Your task to perform on an android device: What is the recent news? Image 0: 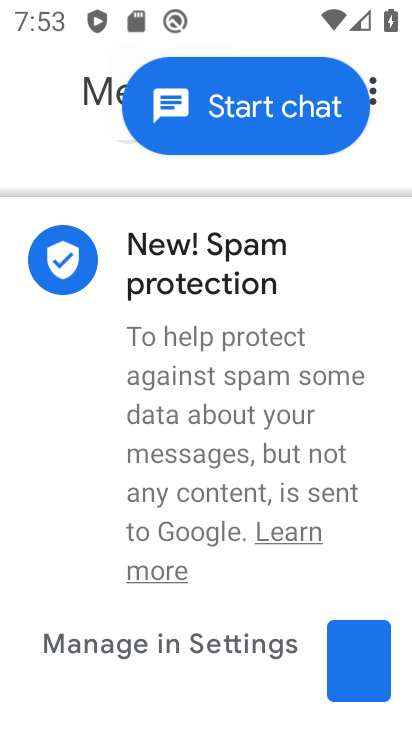
Step 0: press home button
Your task to perform on an android device: What is the recent news? Image 1: 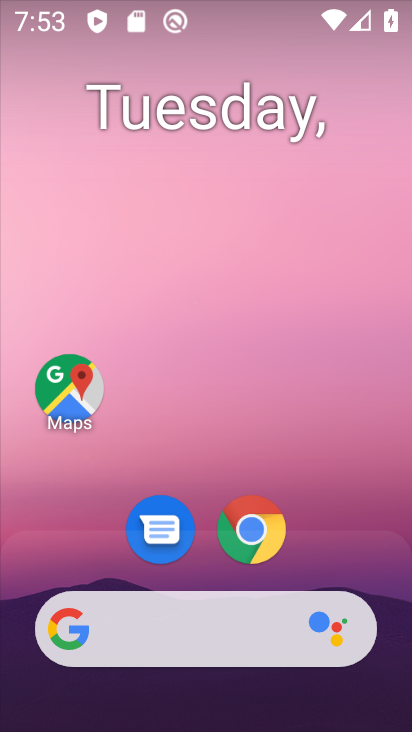
Step 1: click (256, 519)
Your task to perform on an android device: What is the recent news? Image 2: 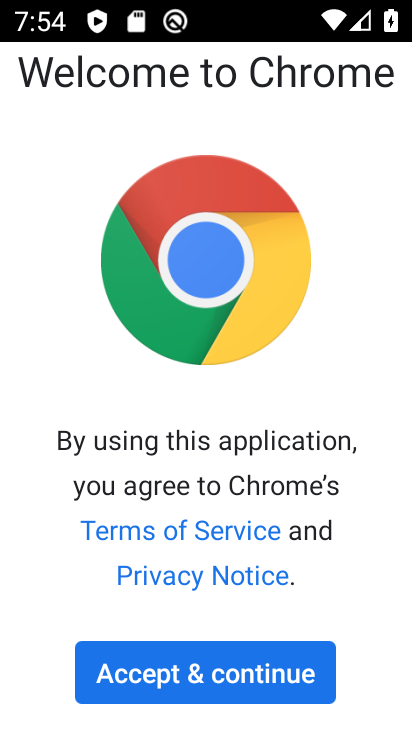
Step 2: click (260, 674)
Your task to perform on an android device: What is the recent news? Image 3: 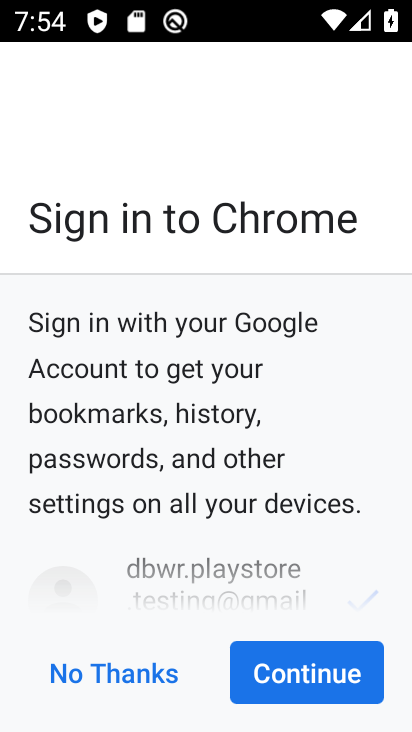
Step 3: click (324, 660)
Your task to perform on an android device: What is the recent news? Image 4: 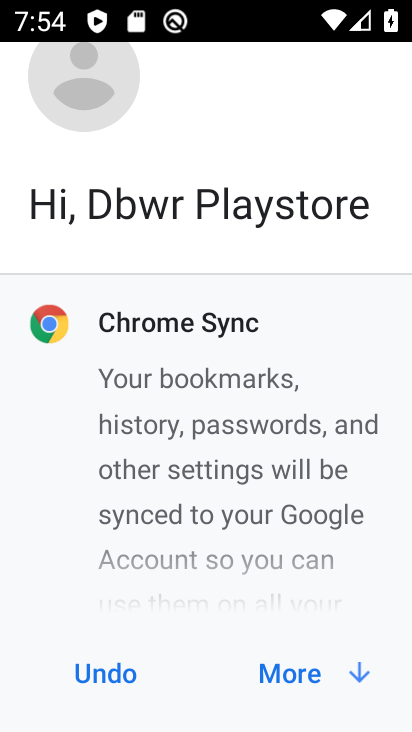
Step 4: click (329, 679)
Your task to perform on an android device: What is the recent news? Image 5: 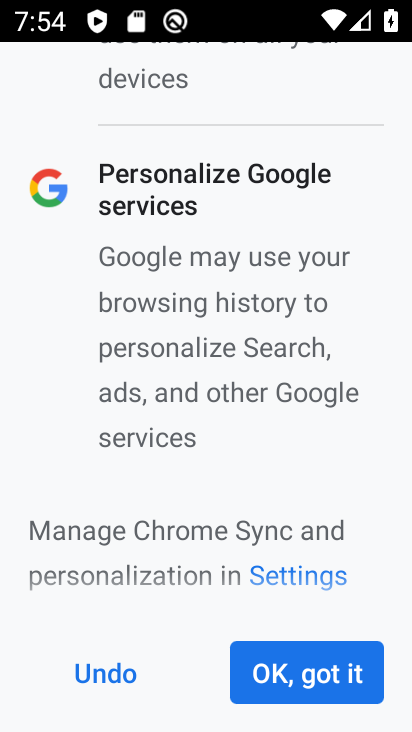
Step 5: click (289, 675)
Your task to perform on an android device: What is the recent news? Image 6: 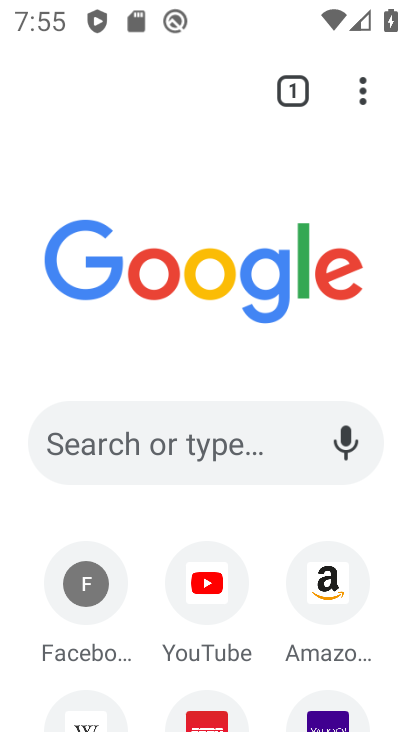
Step 6: task complete